Your task to perform on an android device: delete the emails in spam in the gmail app Image 0: 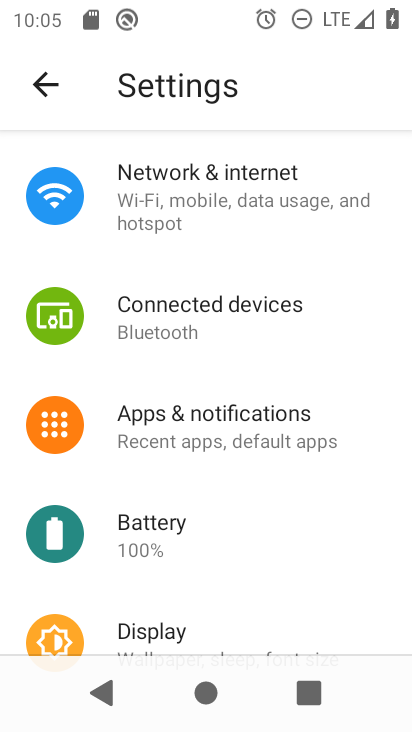
Step 0: press home button
Your task to perform on an android device: delete the emails in spam in the gmail app Image 1: 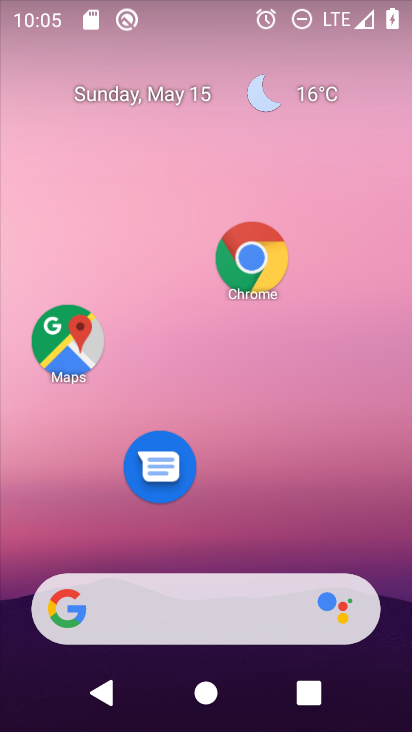
Step 1: drag from (248, 483) to (204, 92)
Your task to perform on an android device: delete the emails in spam in the gmail app Image 2: 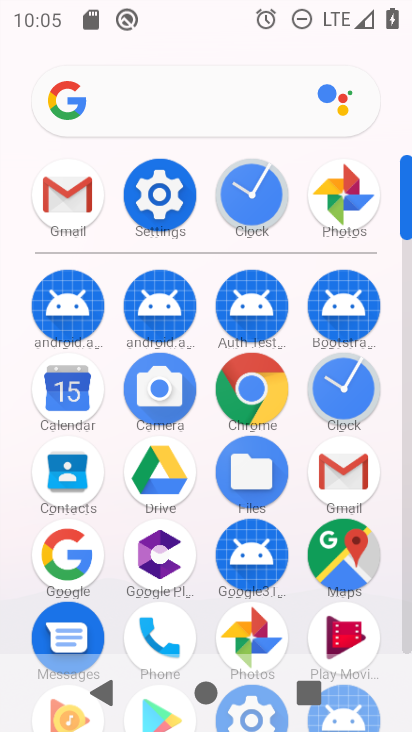
Step 2: click (47, 201)
Your task to perform on an android device: delete the emails in spam in the gmail app Image 3: 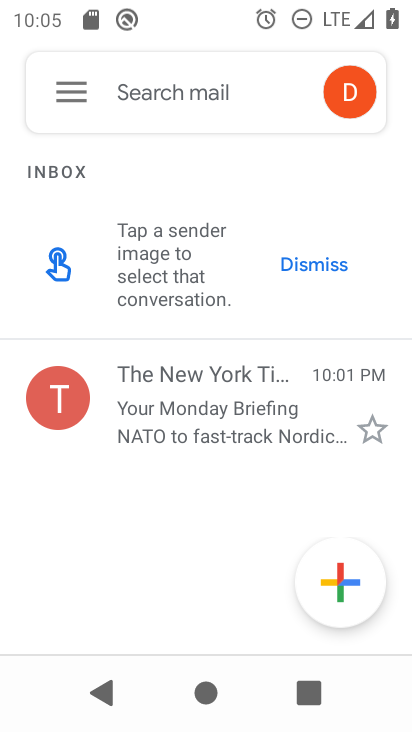
Step 3: click (66, 86)
Your task to perform on an android device: delete the emails in spam in the gmail app Image 4: 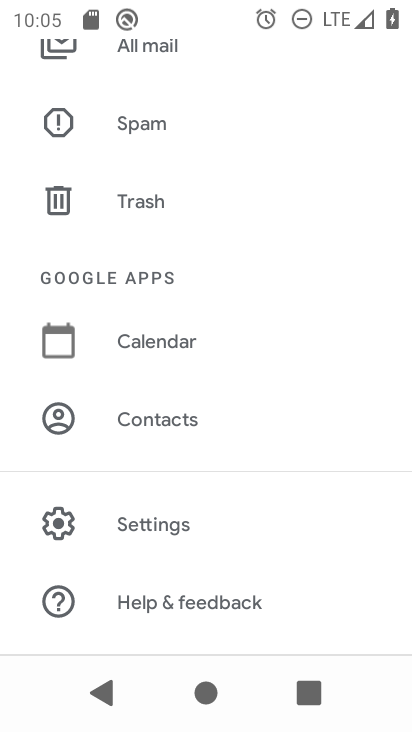
Step 4: click (109, 110)
Your task to perform on an android device: delete the emails in spam in the gmail app Image 5: 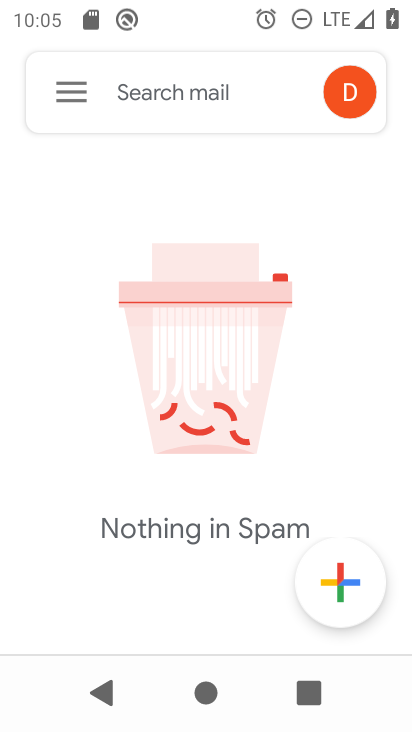
Step 5: task complete